Your task to perform on an android device: turn on showing notifications on the lock screen Image 0: 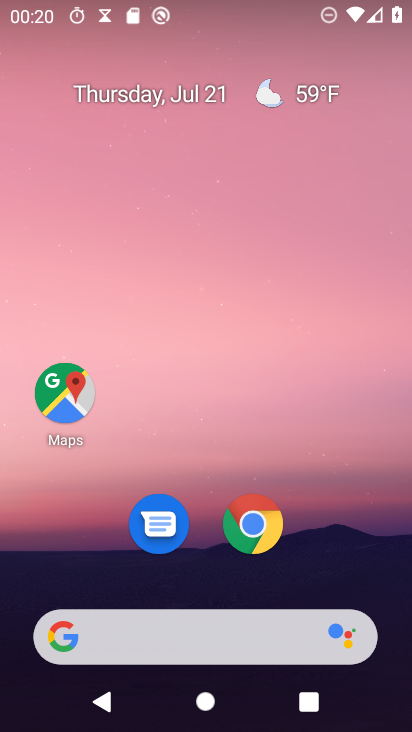
Step 0: press home button
Your task to perform on an android device: turn on showing notifications on the lock screen Image 1: 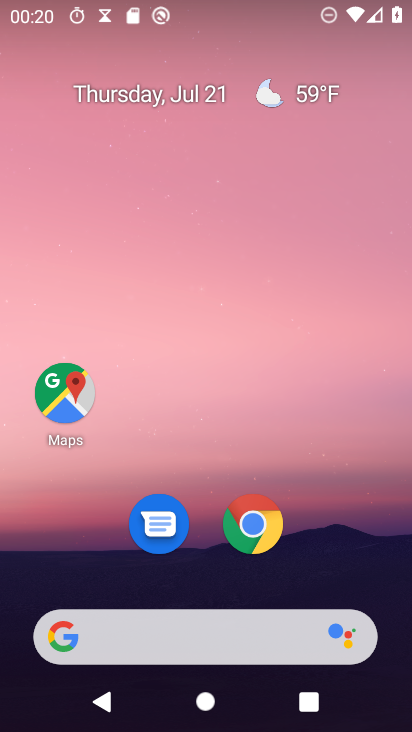
Step 1: drag from (191, 630) to (281, 155)
Your task to perform on an android device: turn on showing notifications on the lock screen Image 2: 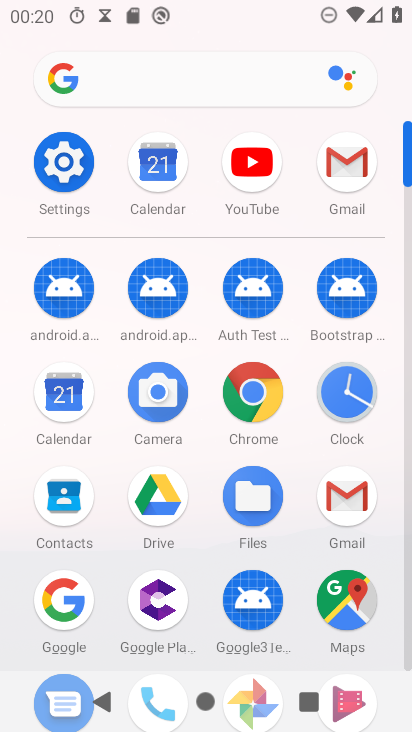
Step 2: click (62, 168)
Your task to perform on an android device: turn on showing notifications on the lock screen Image 3: 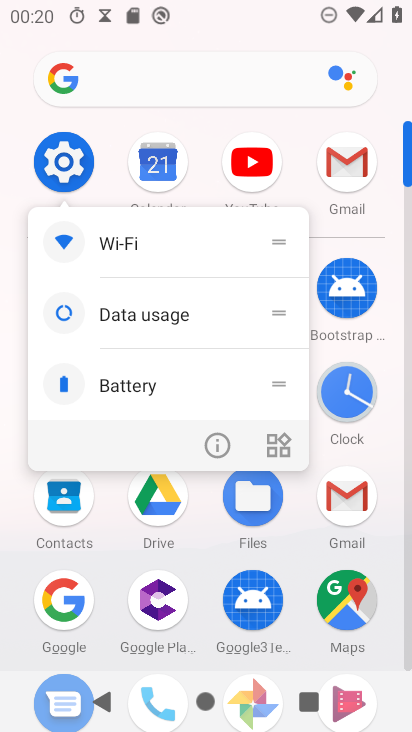
Step 3: click (67, 163)
Your task to perform on an android device: turn on showing notifications on the lock screen Image 4: 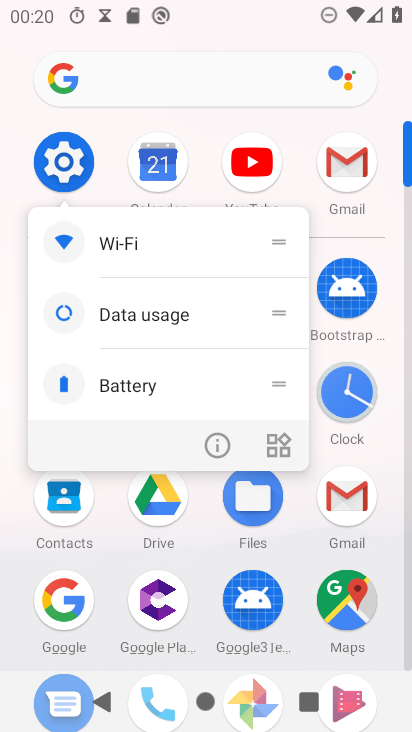
Step 4: click (67, 161)
Your task to perform on an android device: turn on showing notifications on the lock screen Image 5: 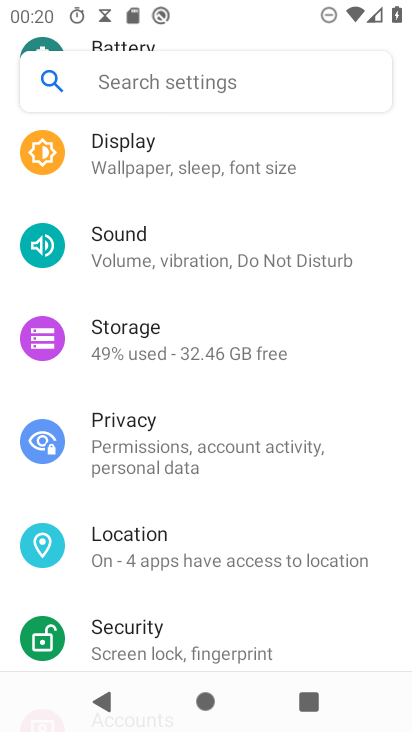
Step 5: drag from (341, 188) to (269, 609)
Your task to perform on an android device: turn on showing notifications on the lock screen Image 6: 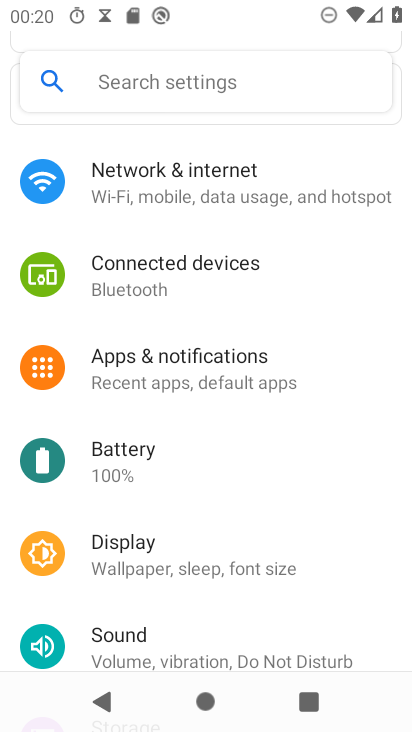
Step 6: click (230, 369)
Your task to perform on an android device: turn on showing notifications on the lock screen Image 7: 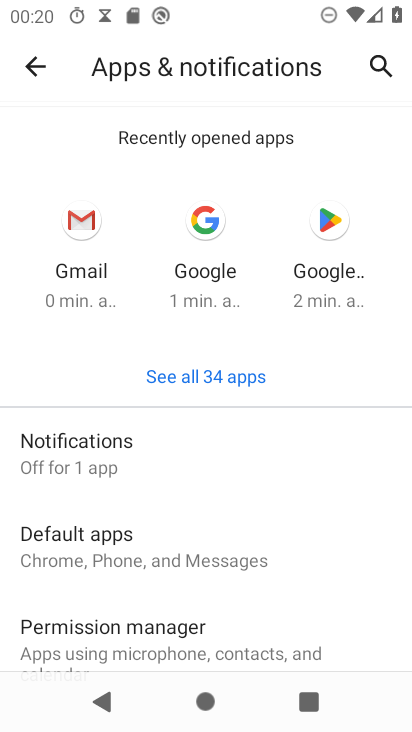
Step 7: click (104, 449)
Your task to perform on an android device: turn on showing notifications on the lock screen Image 8: 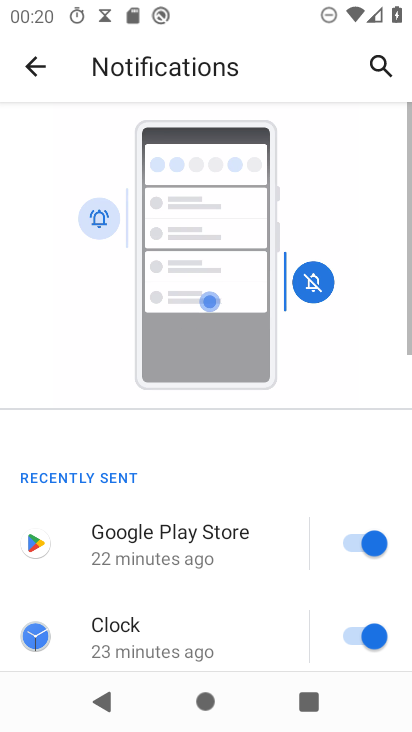
Step 8: drag from (211, 629) to (296, 200)
Your task to perform on an android device: turn on showing notifications on the lock screen Image 9: 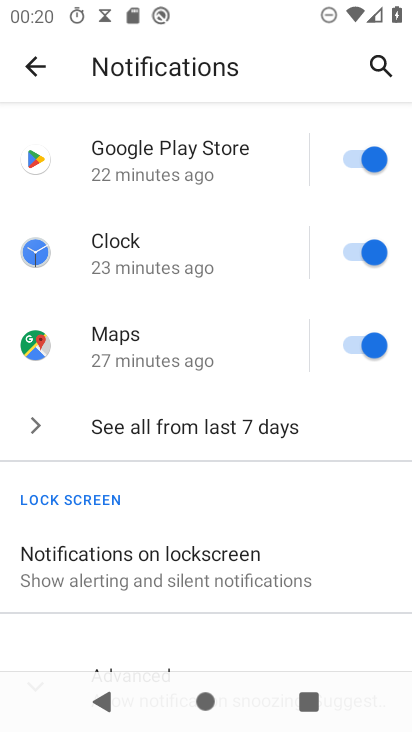
Step 9: click (202, 567)
Your task to perform on an android device: turn on showing notifications on the lock screen Image 10: 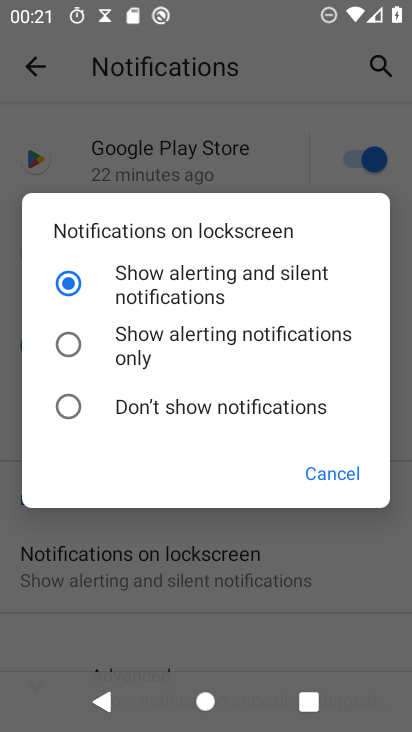
Step 10: task complete